Your task to perform on an android device: turn on notifications settings in the gmail app Image 0: 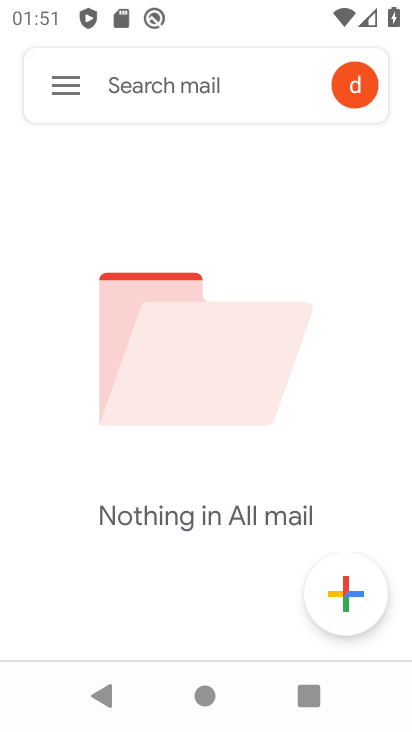
Step 0: press home button
Your task to perform on an android device: turn on notifications settings in the gmail app Image 1: 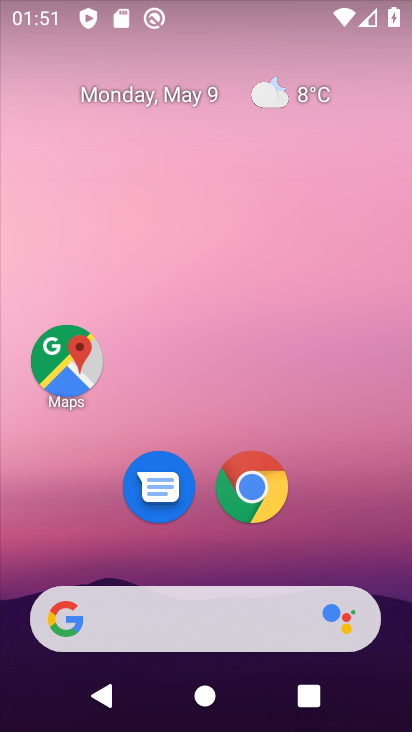
Step 1: drag from (346, 518) to (329, 26)
Your task to perform on an android device: turn on notifications settings in the gmail app Image 2: 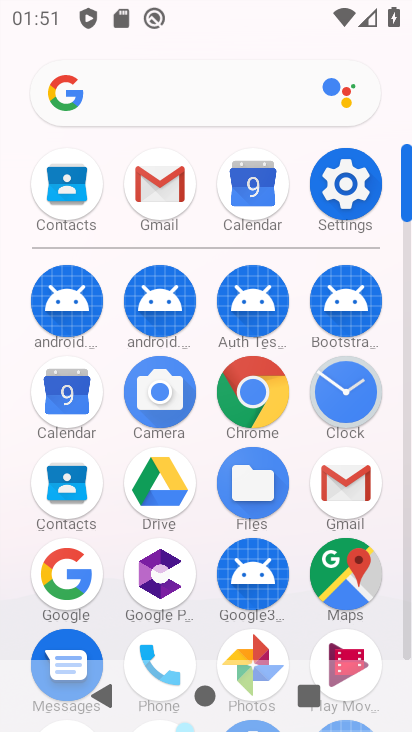
Step 2: click (354, 490)
Your task to perform on an android device: turn on notifications settings in the gmail app Image 3: 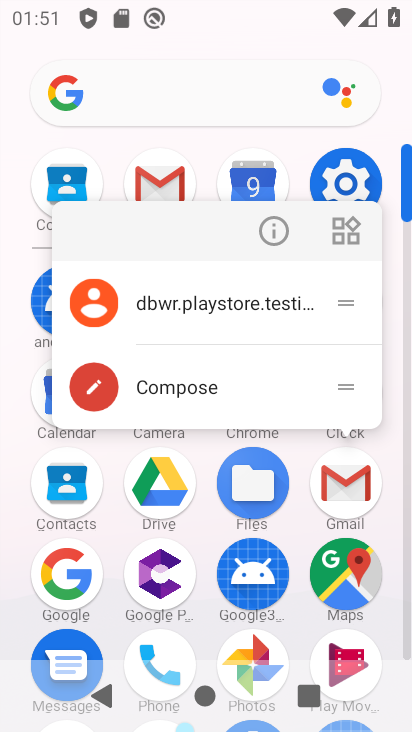
Step 3: click (281, 239)
Your task to perform on an android device: turn on notifications settings in the gmail app Image 4: 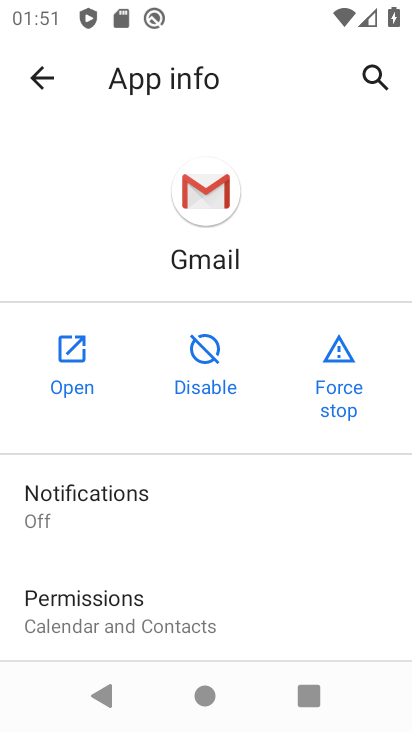
Step 4: drag from (209, 580) to (176, 377)
Your task to perform on an android device: turn on notifications settings in the gmail app Image 5: 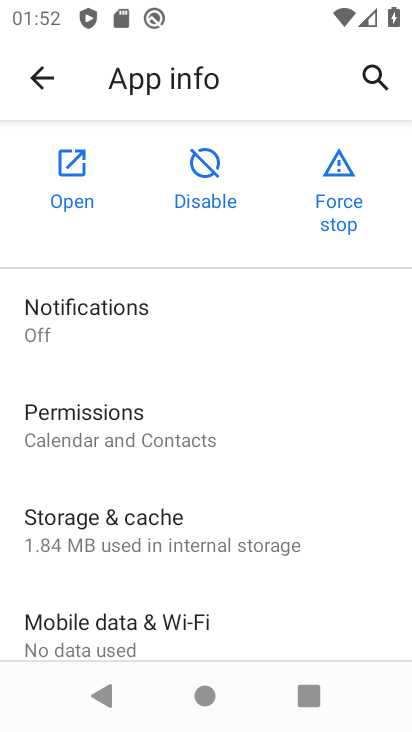
Step 5: click (140, 316)
Your task to perform on an android device: turn on notifications settings in the gmail app Image 6: 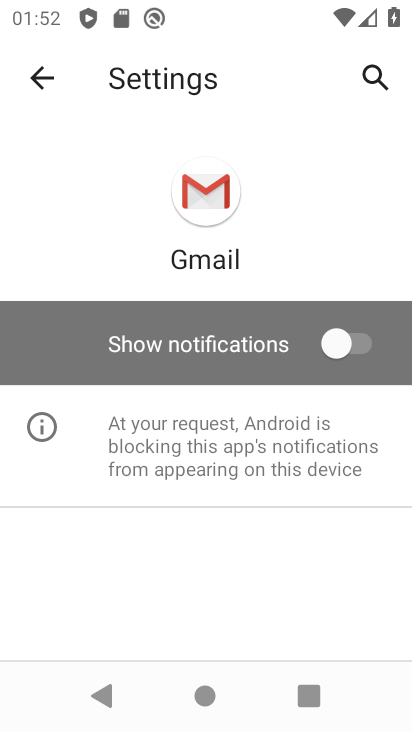
Step 6: click (338, 336)
Your task to perform on an android device: turn on notifications settings in the gmail app Image 7: 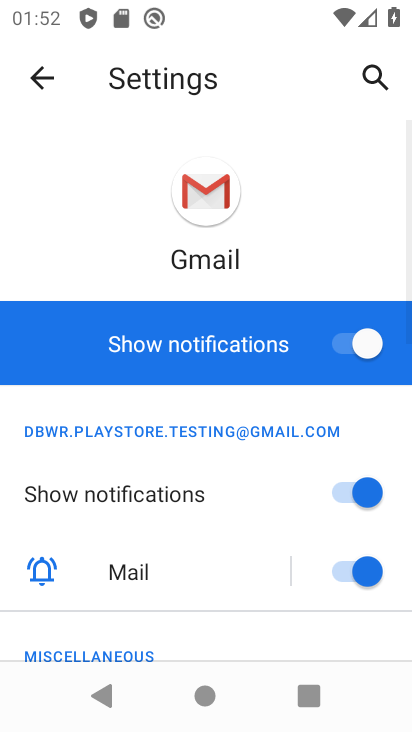
Step 7: task complete